Your task to perform on an android device: uninstall "PUBG MOBILE" Image 0: 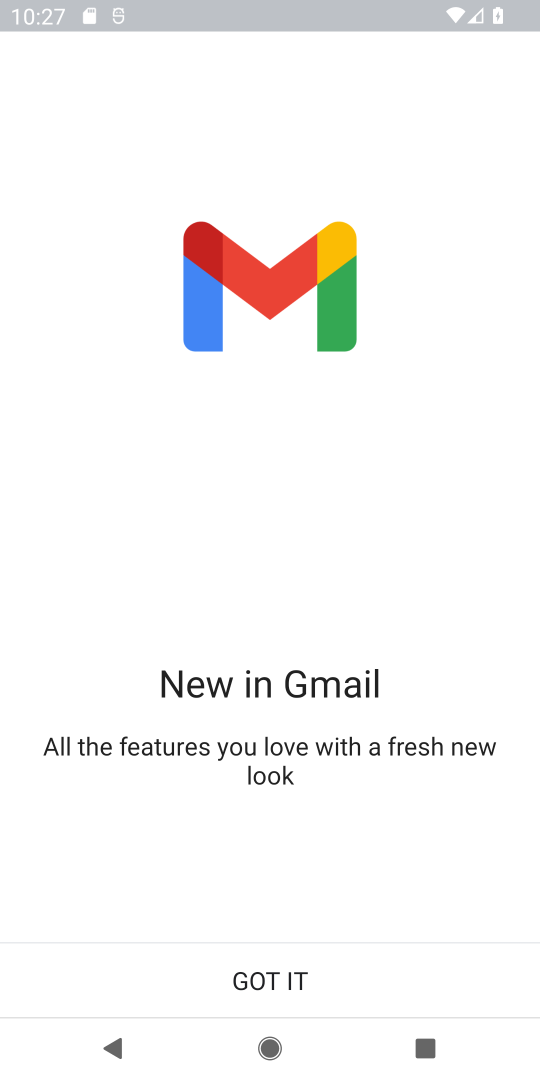
Step 0: press home button
Your task to perform on an android device: uninstall "PUBG MOBILE" Image 1: 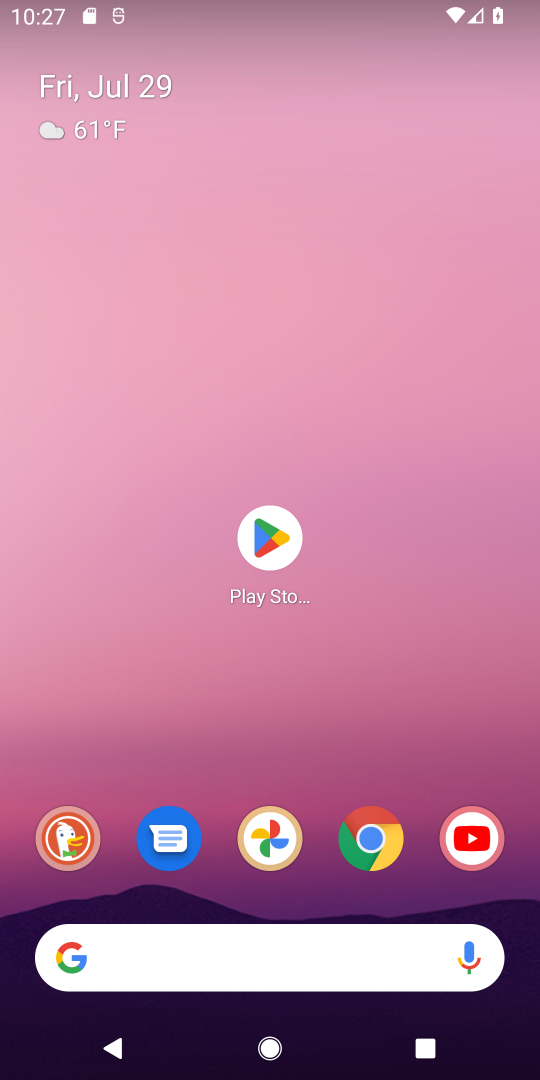
Step 1: click (263, 534)
Your task to perform on an android device: uninstall "PUBG MOBILE" Image 2: 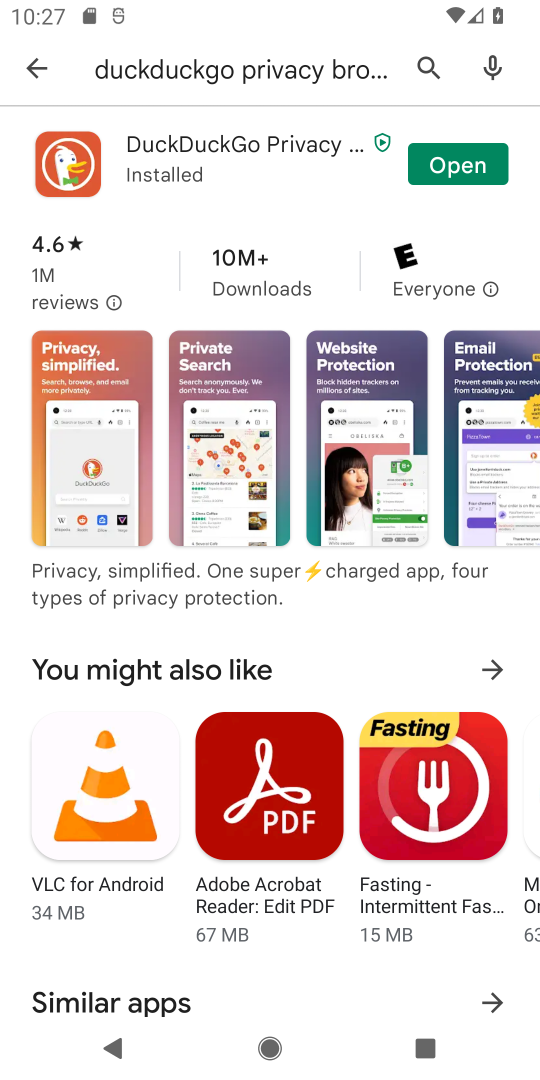
Step 2: click (426, 67)
Your task to perform on an android device: uninstall "PUBG MOBILE" Image 3: 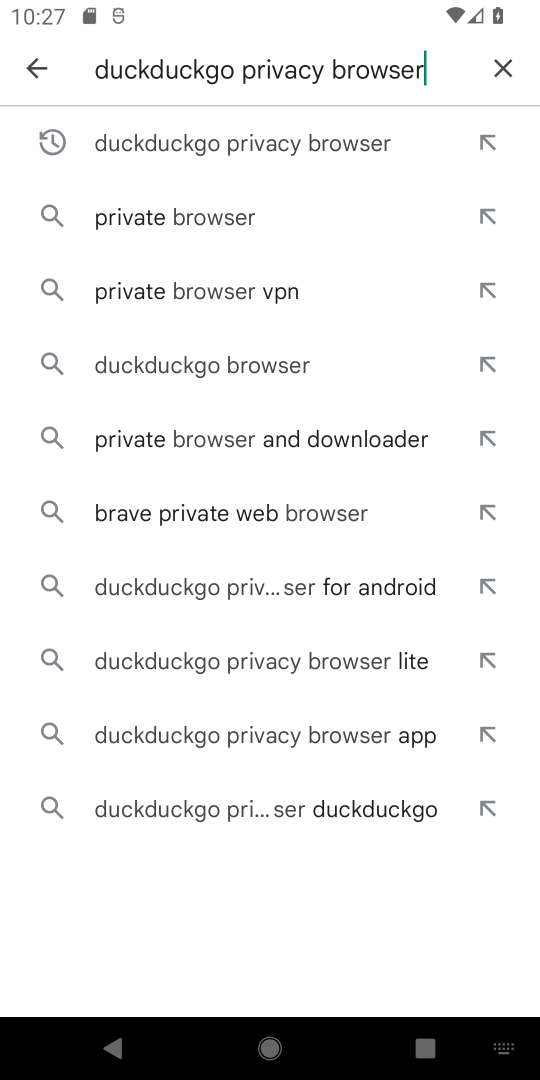
Step 3: click (500, 61)
Your task to perform on an android device: uninstall "PUBG MOBILE" Image 4: 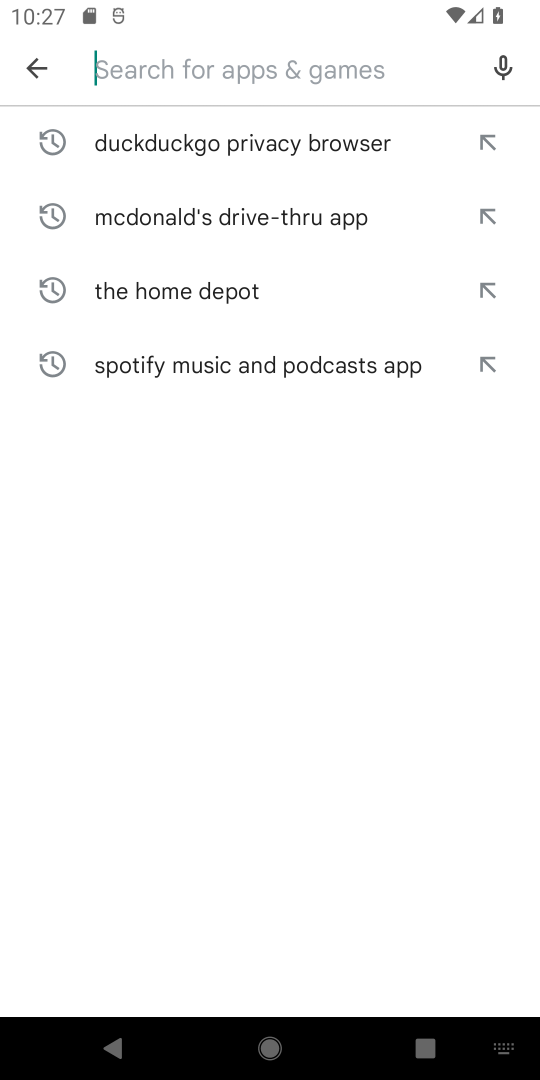
Step 4: type "PUBG MOBILE"
Your task to perform on an android device: uninstall "PUBG MOBILE" Image 5: 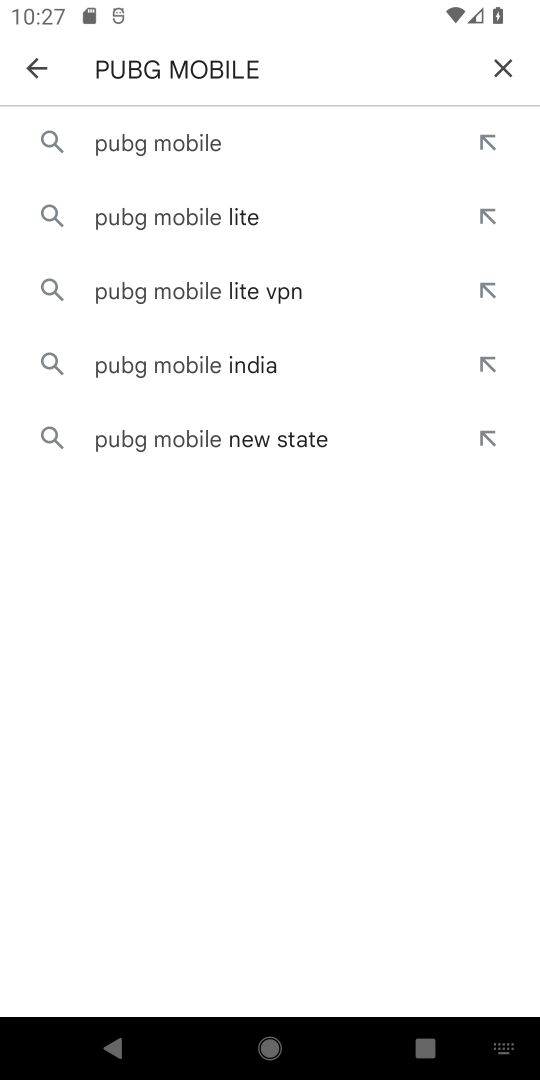
Step 5: click (178, 127)
Your task to perform on an android device: uninstall "PUBG MOBILE" Image 6: 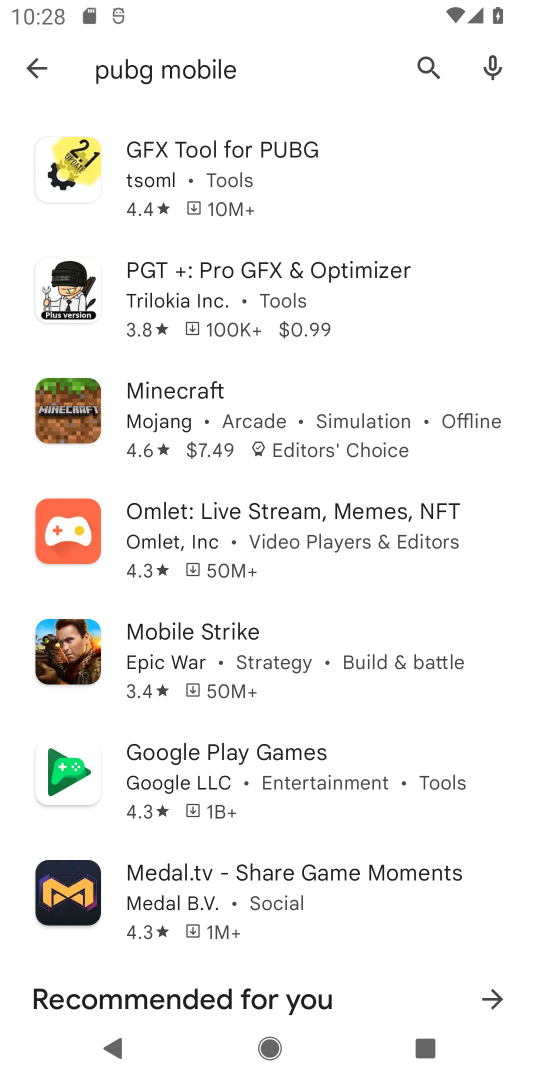
Step 6: task complete